Your task to perform on an android device: turn off location Image 0: 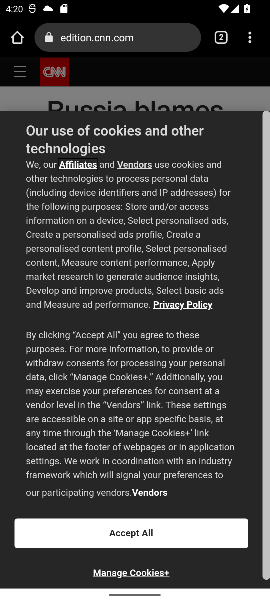
Step 0: press home button
Your task to perform on an android device: turn off location Image 1: 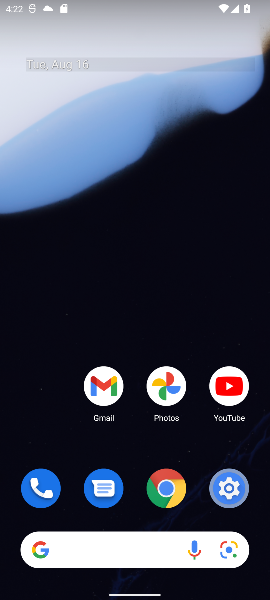
Step 1: click (257, 489)
Your task to perform on an android device: turn off location Image 2: 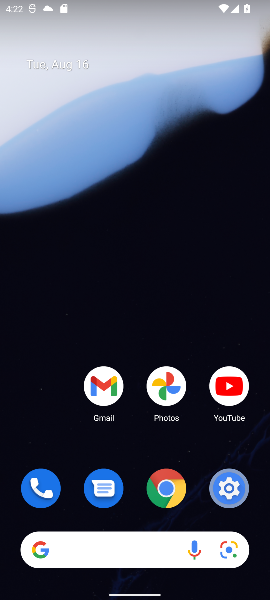
Step 2: click (234, 485)
Your task to perform on an android device: turn off location Image 3: 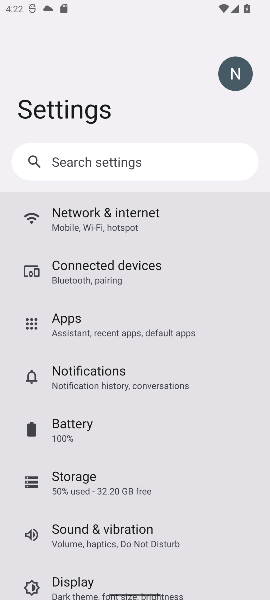
Step 3: task complete